Your task to perform on an android device: turn on location history Image 0: 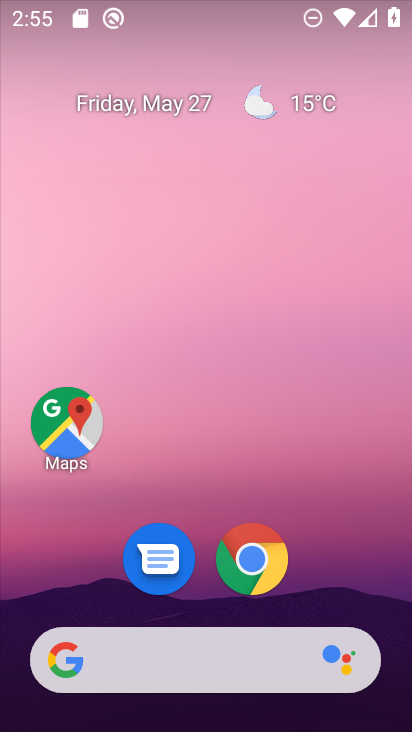
Step 0: drag from (245, 666) to (245, 42)
Your task to perform on an android device: turn on location history Image 1: 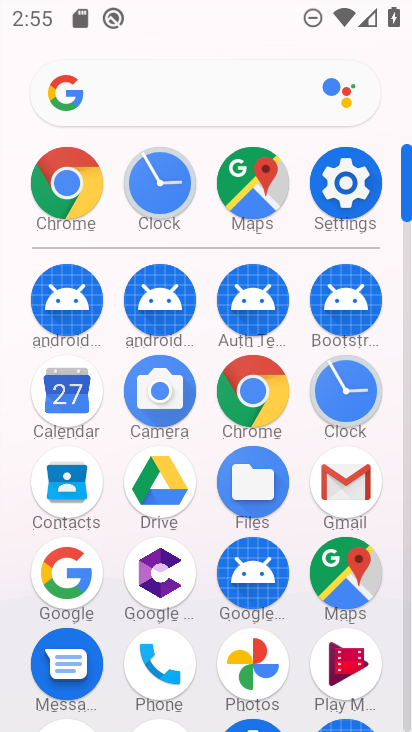
Step 1: click (333, 206)
Your task to perform on an android device: turn on location history Image 2: 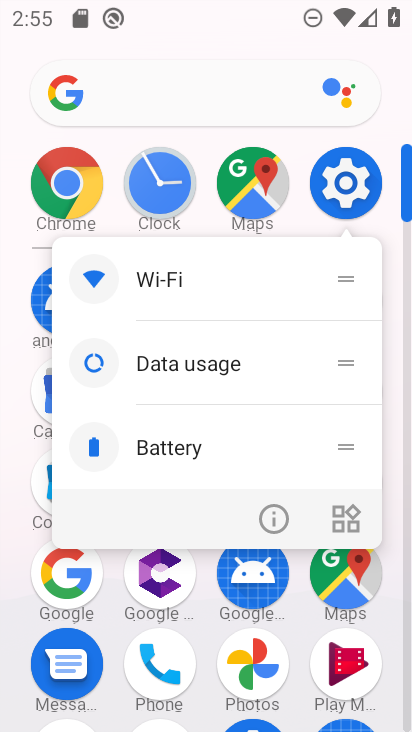
Step 2: click (347, 187)
Your task to perform on an android device: turn on location history Image 3: 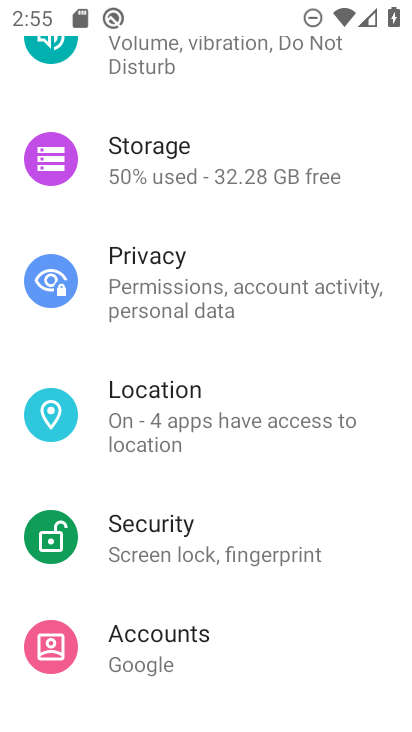
Step 3: click (203, 421)
Your task to perform on an android device: turn on location history Image 4: 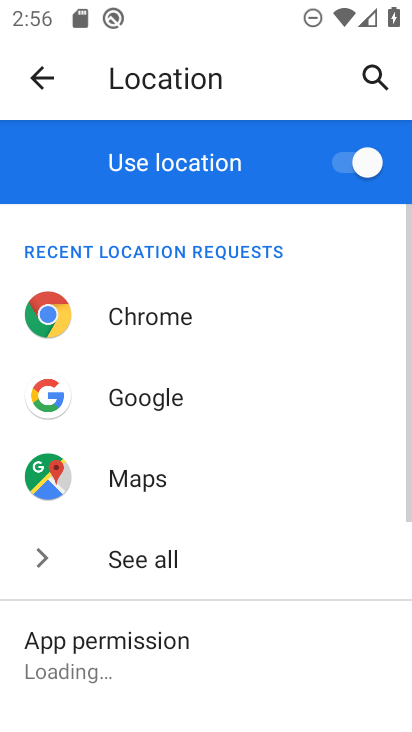
Step 4: drag from (221, 584) to (203, 120)
Your task to perform on an android device: turn on location history Image 5: 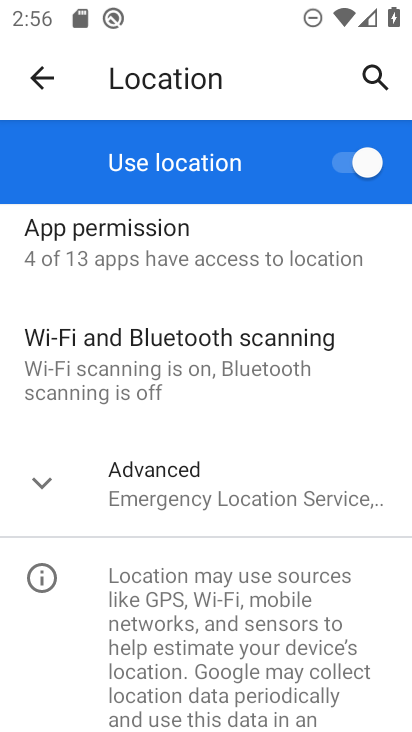
Step 5: click (209, 610)
Your task to perform on an android device: turn on location history Image 6: 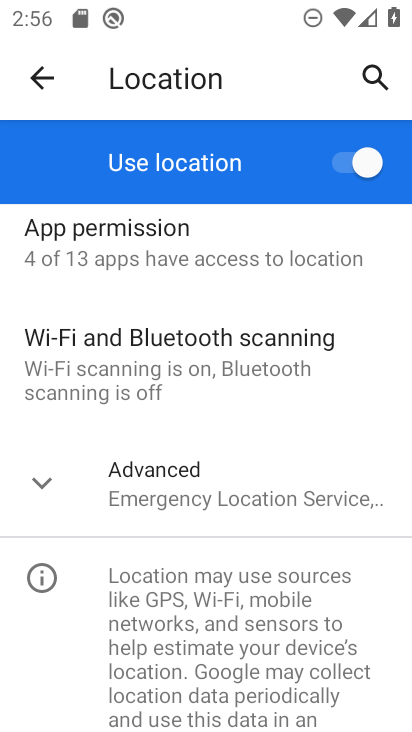
Step 6: click (227, 629)
Your task to perform on an android device: turn on location history Image 7: 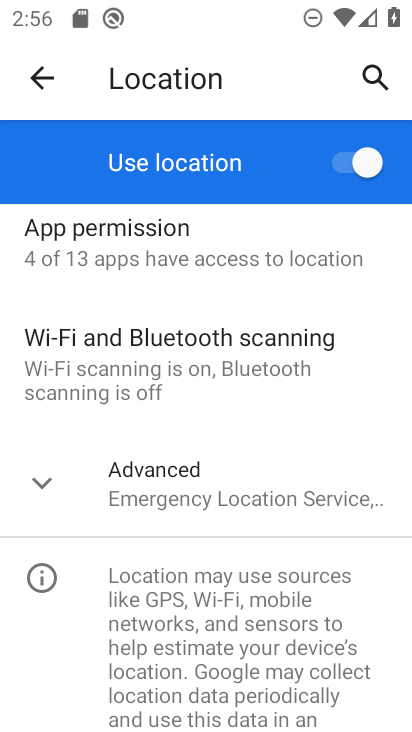
Step 7: drag from (227, 629) to (263, 437)
Your task to perform on an android device: turn on location history Image 8: 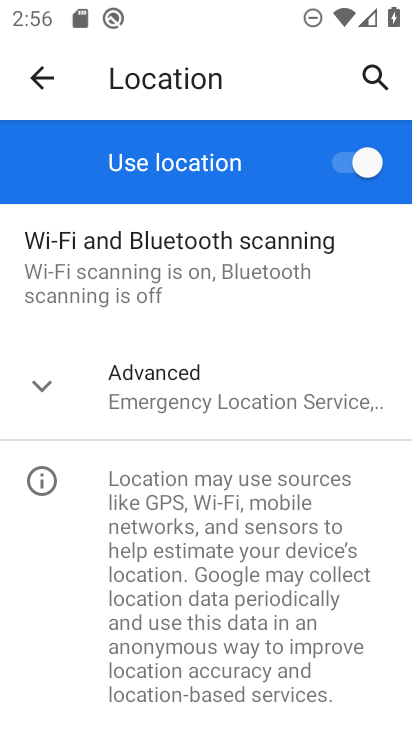
Step 8: click (248, 398)
Your task to perform on an android device: turn on location history Image 9: 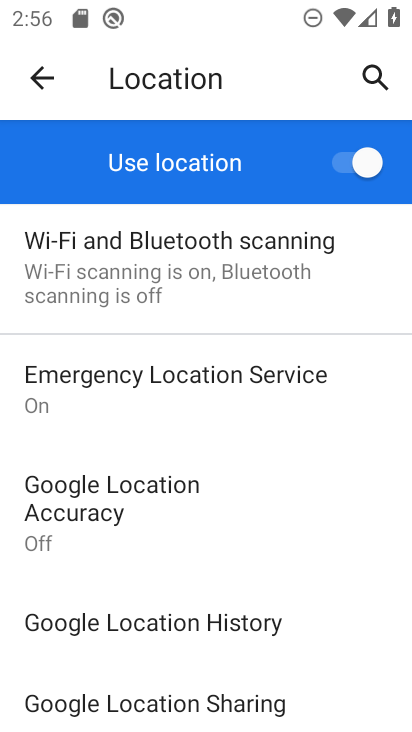
Step 9: click (257, 634)
Your task to perform on an android device: turn on location history Image 10: 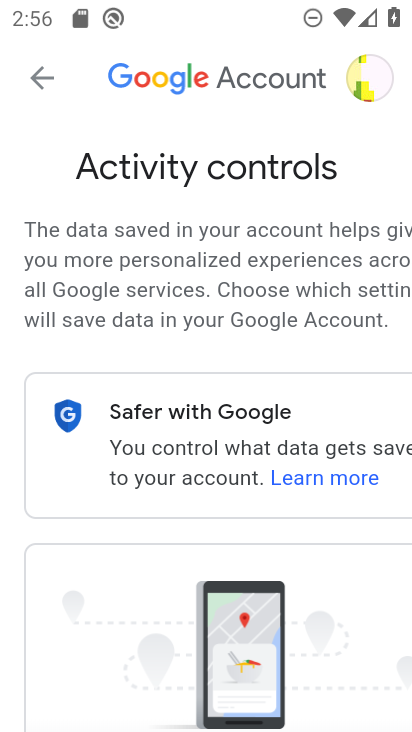
Step 10: task complete